Your task to perform on an android device: Go to display settings Image 0: 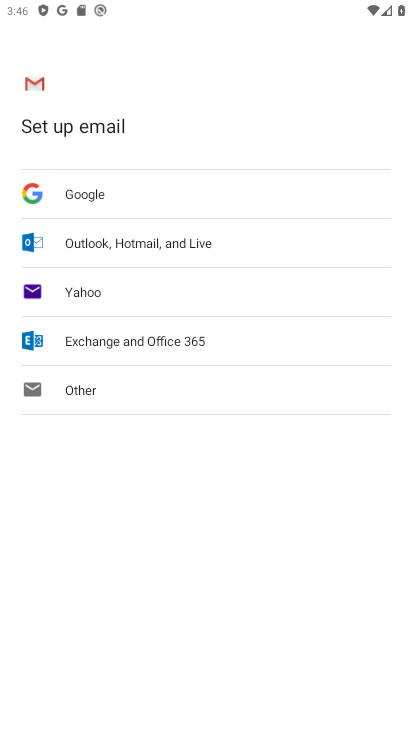
Step 0: press home button
Your task to perform on an android device: Go to display settings Image 1: 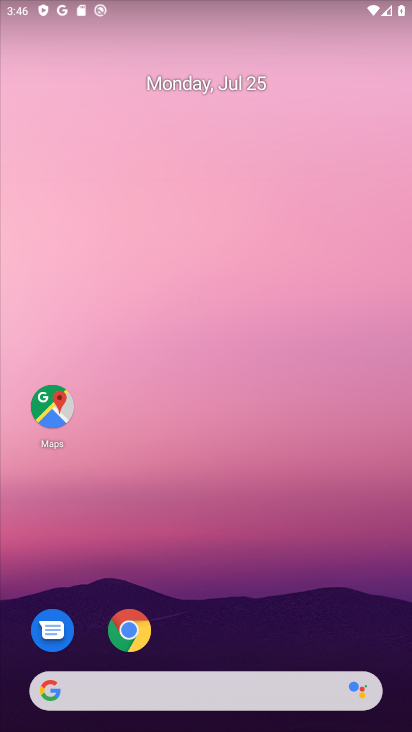
Step 1: drag from (171, 695) to (186, 190)
Your task to perform on an android device: Go to display settings Image 2: 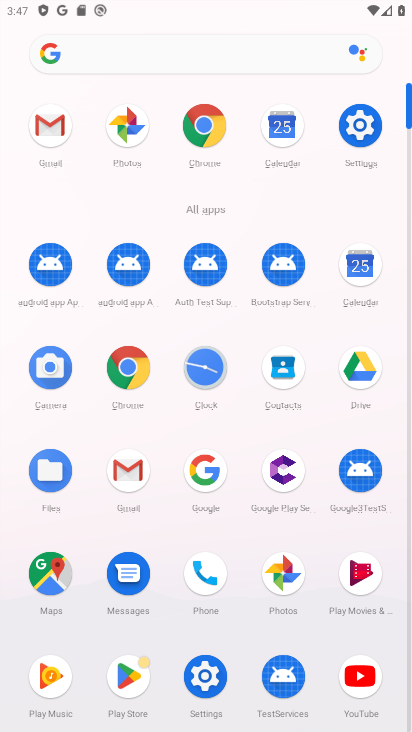
Step 2: click (359, 125)
Your task to perform on an android device: Go to display settings Image 3: 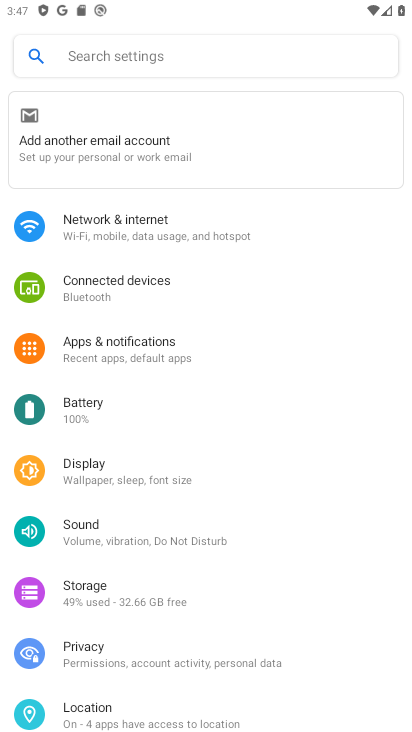
Step 3: click (82, 471)
Your task to perform on an android device: Go to display settings Image 4: 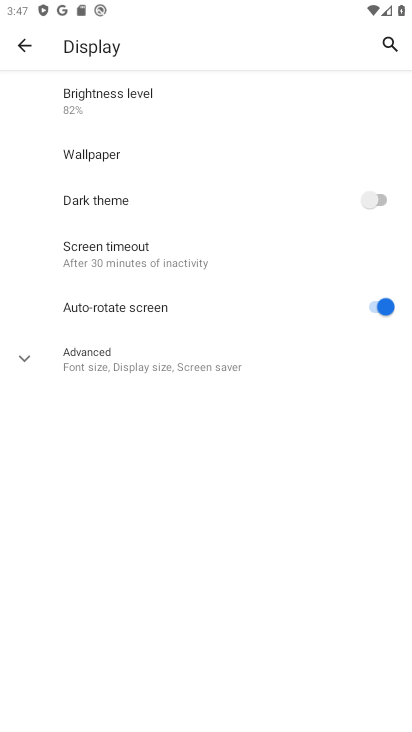
Step 4: task complete